Your task to perform on an android device: change the clock display to analog Image 0: 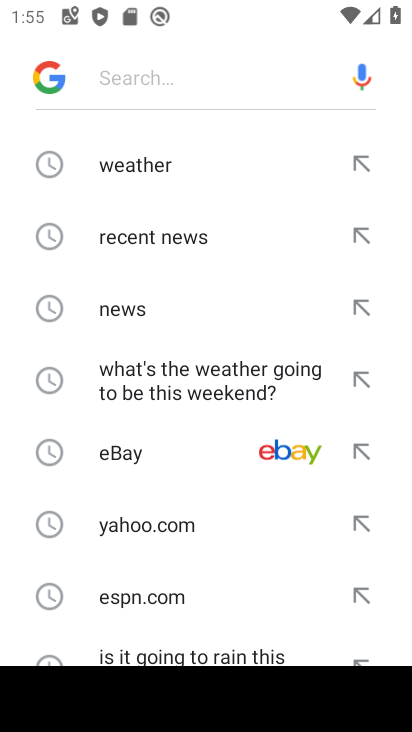
Step 0: press home button
Your task to perform on an android device: change the clock display to analog Image 1: 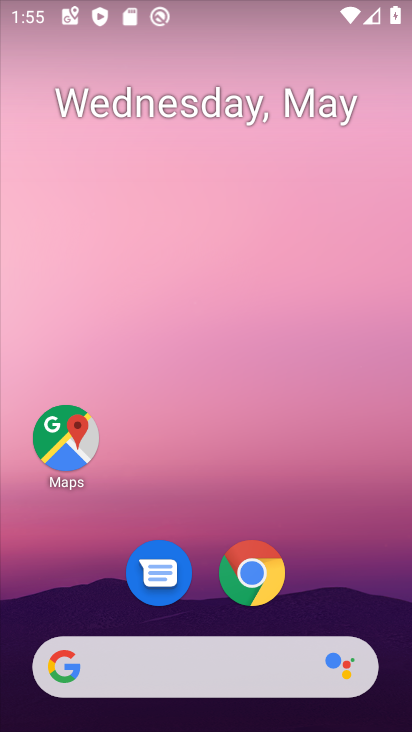
Step 1: drag from (353, 599) to (304, 24)
Your task to perform on an android device: change the clock display to analog Image 2: 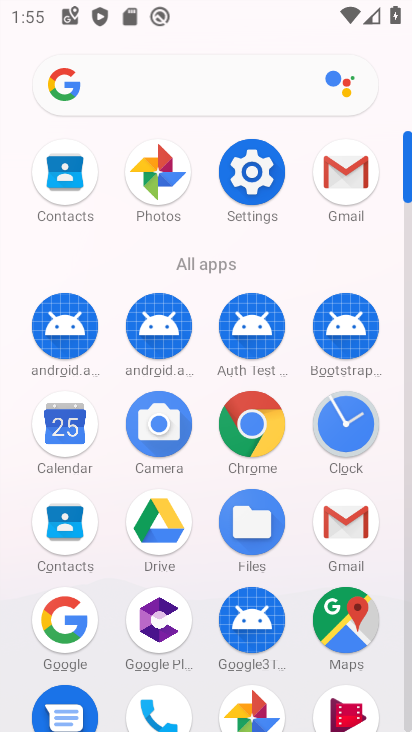
Step 2: click (333, 427)
Your task to perform on an android device: change the clock display to analog Image 3: 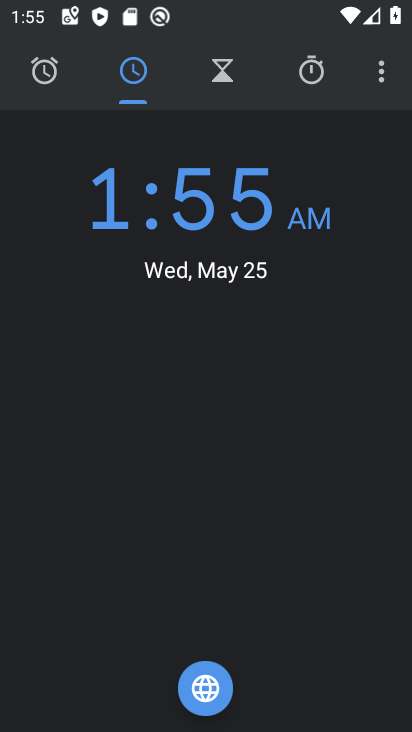
Step 3: click (383, 67)
Your task to perform on an android device: change the clock display to analog Image 4: 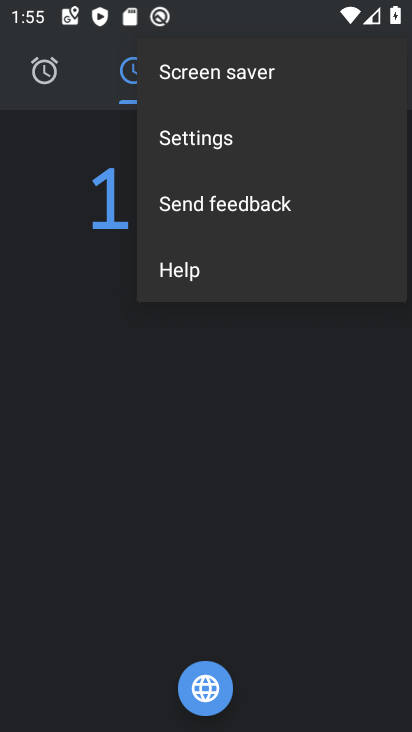
Step 4: click (260, 145)
Your task to perform on an android device: change the clock display to analog Image 5: 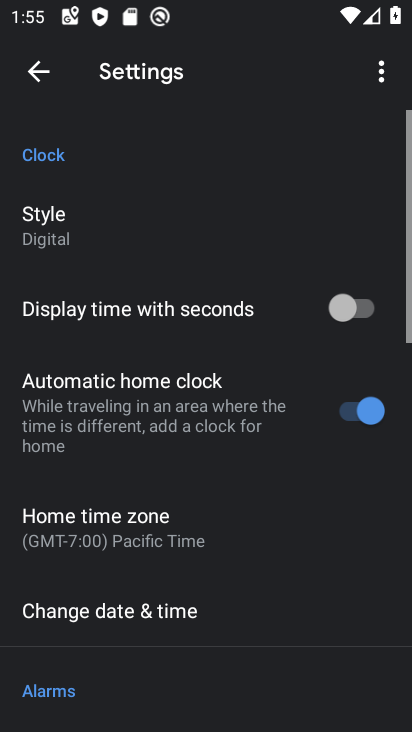
Step 5: click (87, 241)
Your task to perform on an android device: change the clock display to analog Image 6: 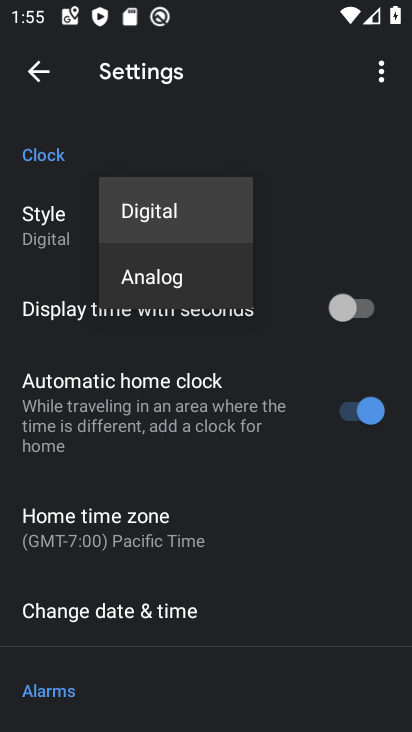
Step 6: click (161, 273)
Your task to perform on an android device: change the clock display to analog Image 7: 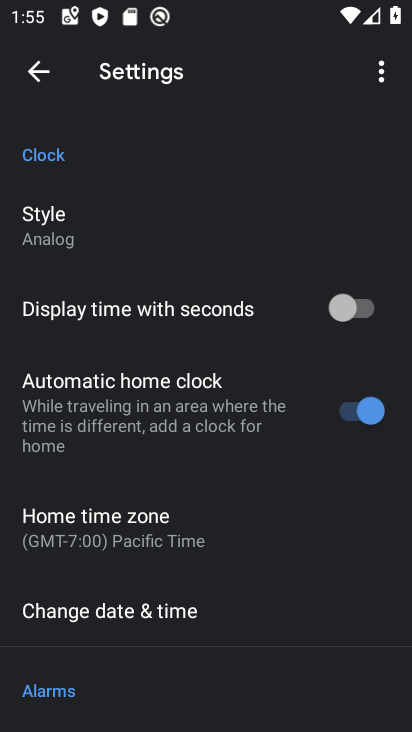
Step 7: task complete